Your task to perform on an android device: turn off data saver in the chrome app Image 0: 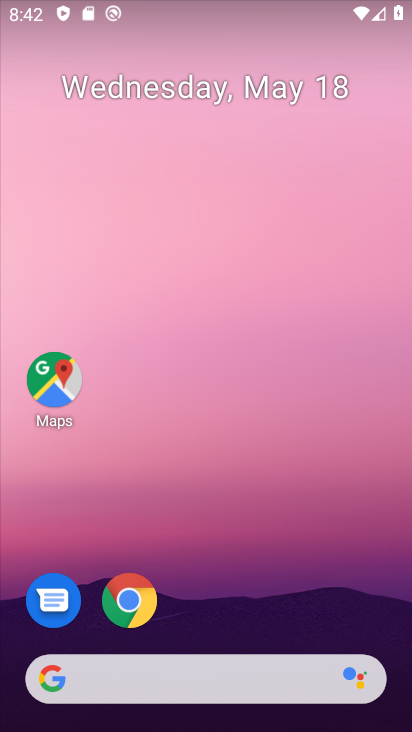
Step 0: click (123, 595)
Your task to perform on an android device: turn off data saver in the chrome app Image 1: 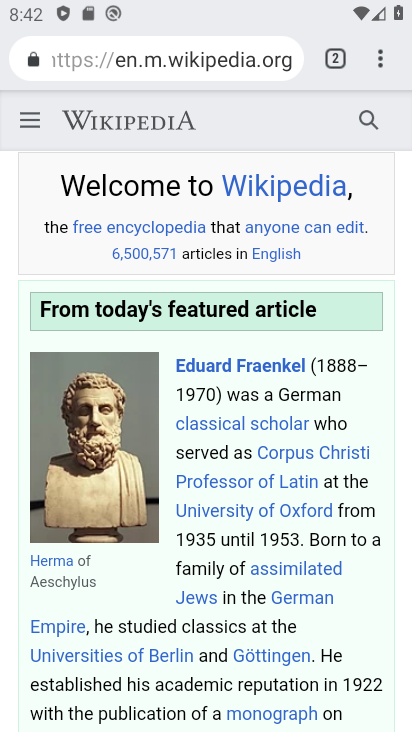
Step 1: click (384, 58)
Your task to perform on an android device: turn off data saver in the chrome app Image 2: 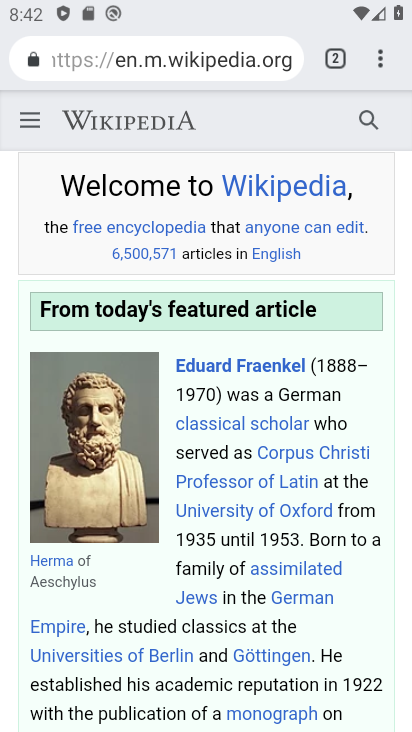
Step 2: click (376, 65)
Your task to perform on an android device: turn off data saver in the chrome app Image 3: 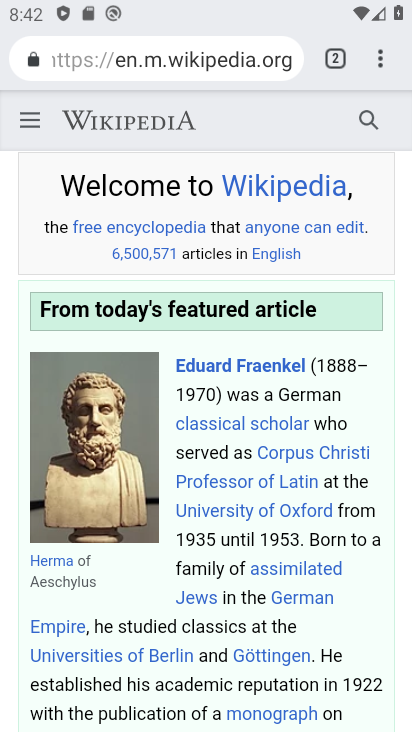
Step 3: click (384, 61)
Your task to perform on an android device: turn off data saver in the chrome app Image 4: 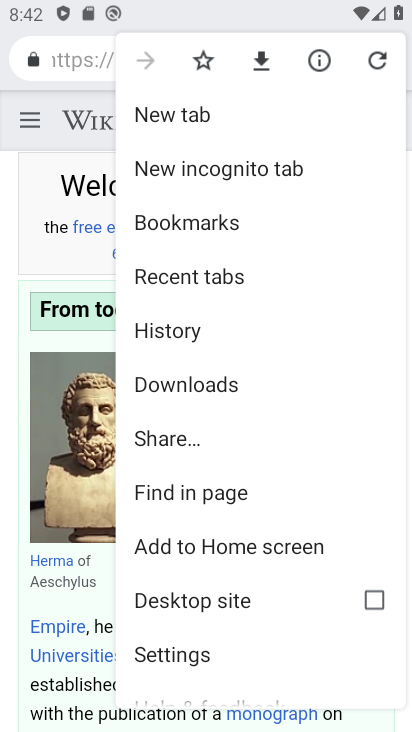
Step 4: click (182, 646)
Your task to perform on an android device: turn off data saver in the chrome app Image 5: 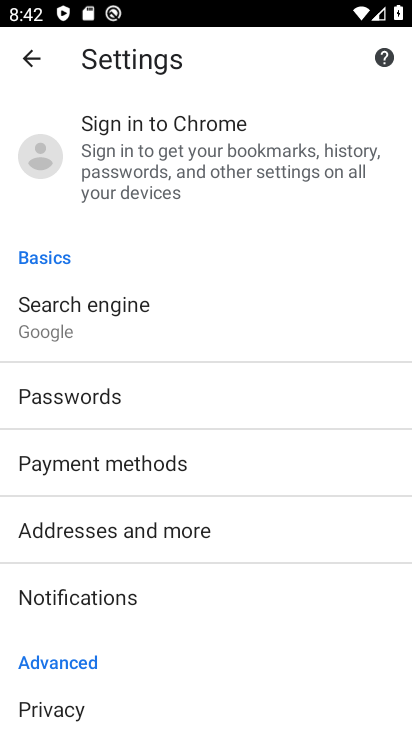
Step 5: drag from (6, 560) to (213, 161)
Your task to perform on an android device: turn off data saver in the chrome app Image 6: 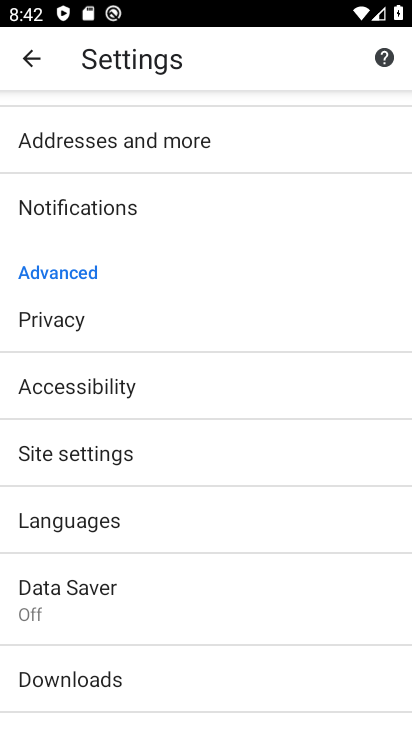
Step 6: click (96, 595)
Your task to perform on an android device: turn off data saver in the chrome app Image 7: 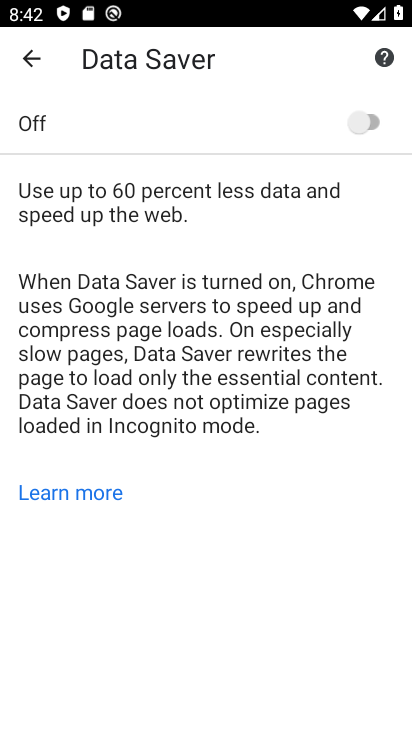
Step 7: task complete